Your task to perform on an android device: Open settings Image 0: 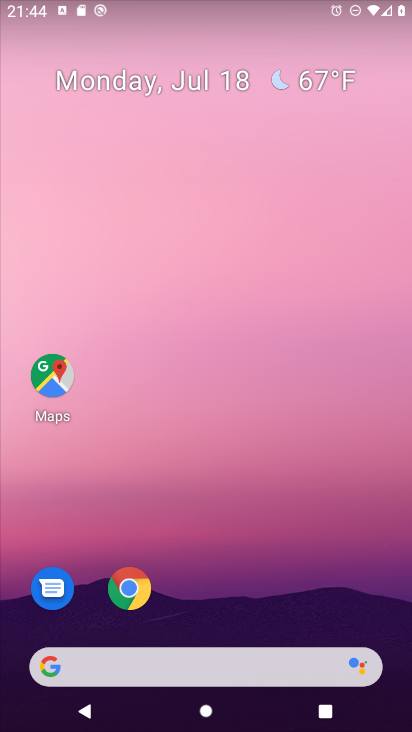
Step 0: drag from (359, 619) to (322, 47)
Your task to perform on an android device: Open settings Image 1: 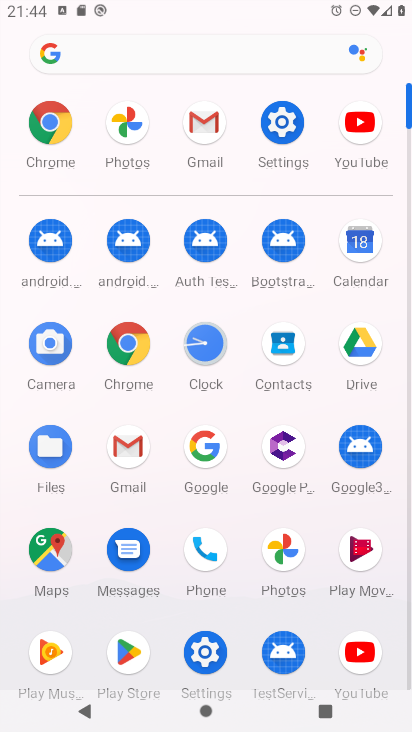
Step 1: click (205, 652)
Your task to perform on an android device: Open settings Image 2: 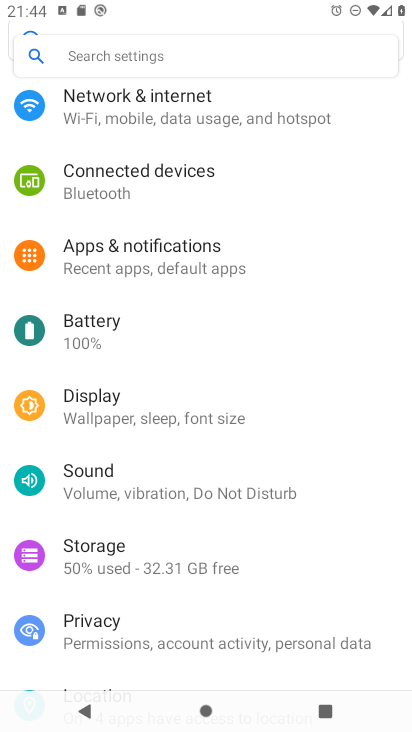
Step 2: task complete